Your task to perform on an android device: clear history in the chrome app Image 0: 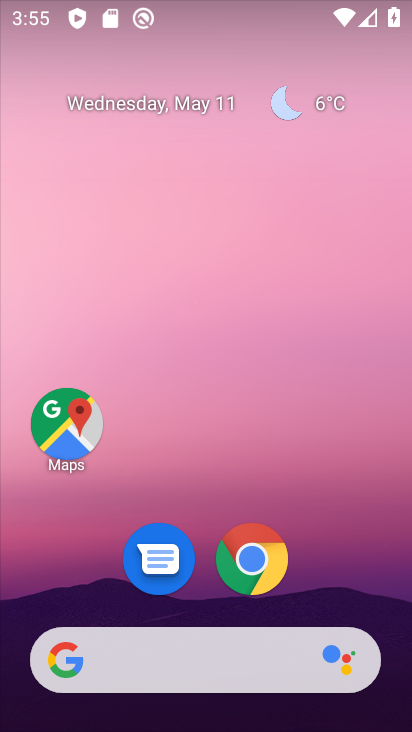
Step 0: drag from (349, 509) to (390, 94)
Your task to perform on an android device: clear history in the chrome app Image 1: 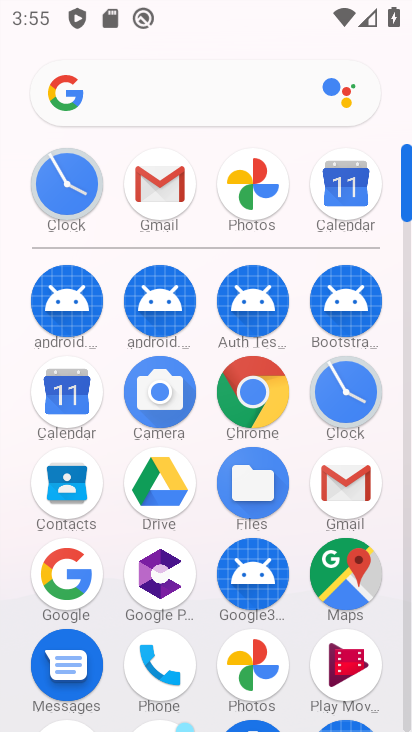
Step 1: click (270, 400)
Your task to perform on an android device: clear history in the chrome app Image 2: 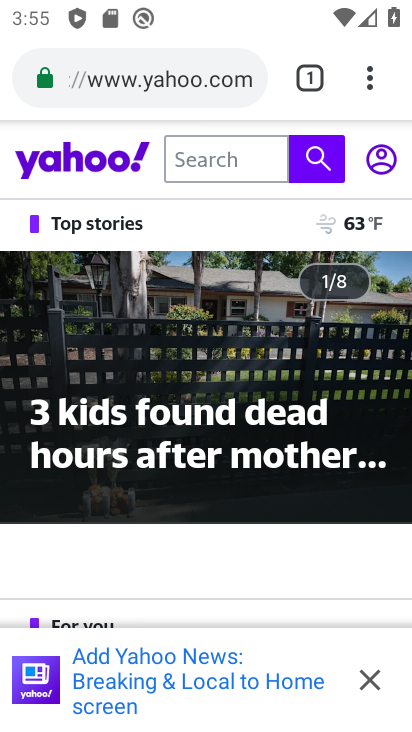
Step 2: press home button
Your task to perform on an android device: clear history in the chrome app Image 3: 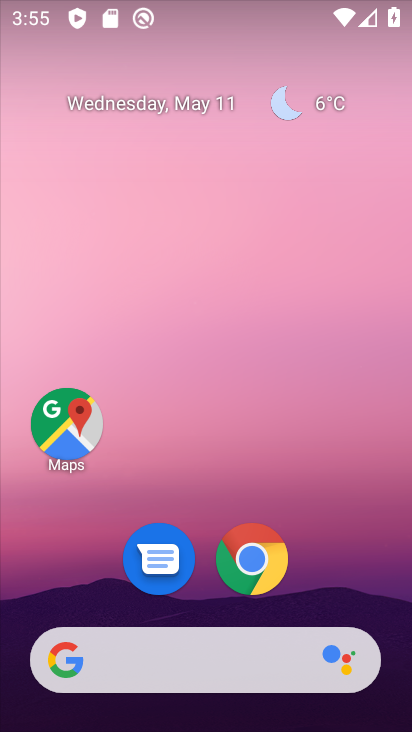
Step 3: drag from (381, 468) to (395, 65)
Your task to perform on an android device: clear history in the chrome app Image 4: 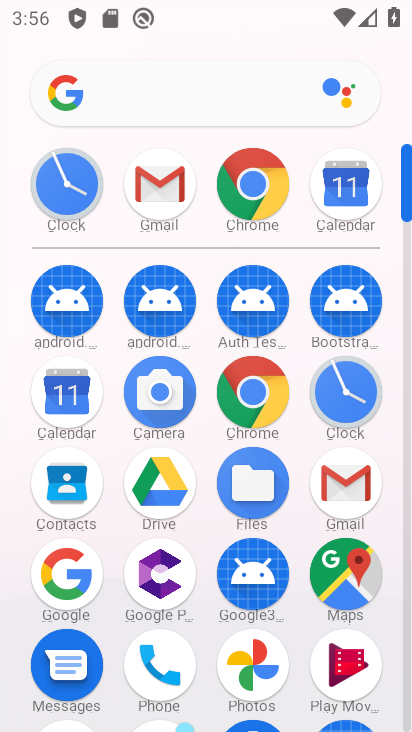
Step 4: click (273, 175)
Your task to perform on an android device: clear history in the chrome app Image 5: 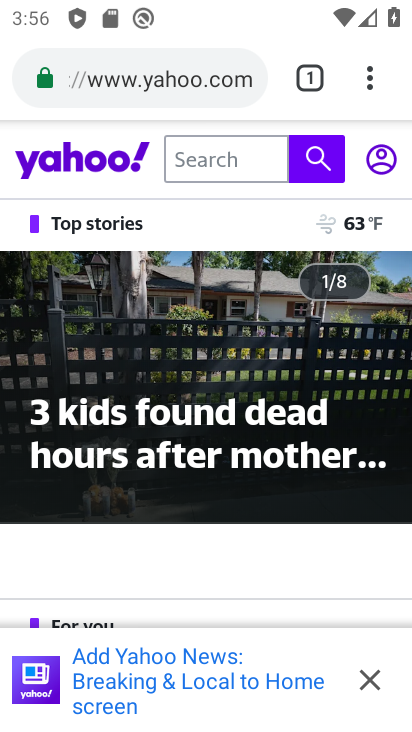
Step 5: drag from (374, 77) to (85, 444)
Your task to perform on an android device: clear history in the chrome app Image 6: 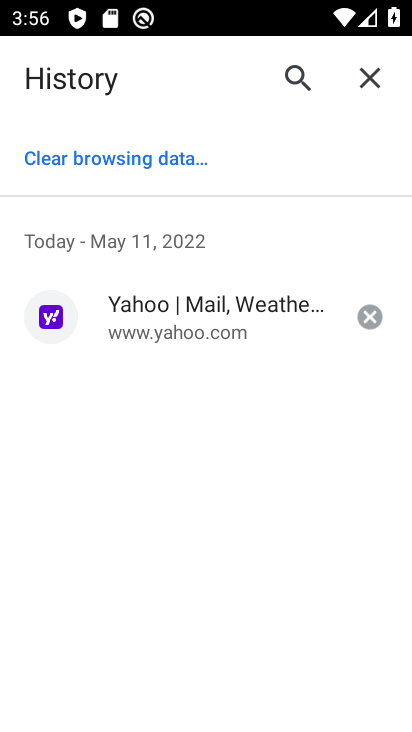
Step 6: click (77, 156)
Your task to perform on an android device: clear history in the chrome app Image 7: 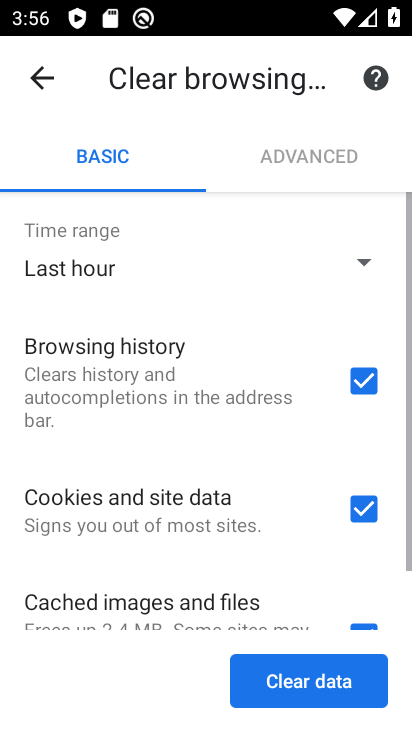
Step 7: click (281, 682)
Your task to perform on an android device: clear history in the chrome app Image 8: 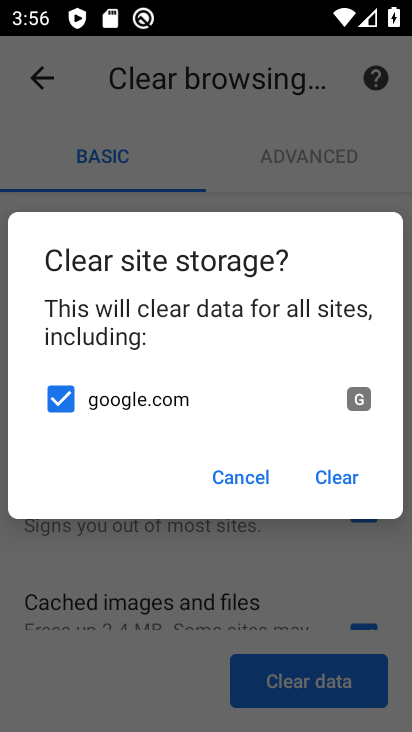
Step 8: click (345, 466)
Your task to perform on an android device: clear history in the chrome app Image 9: 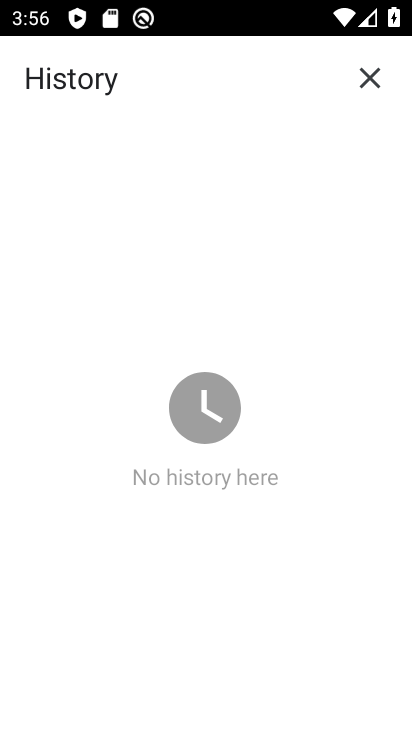
Step 9: task complete